Your task to perform on an android device: turn on improve location accuracy Image 0: 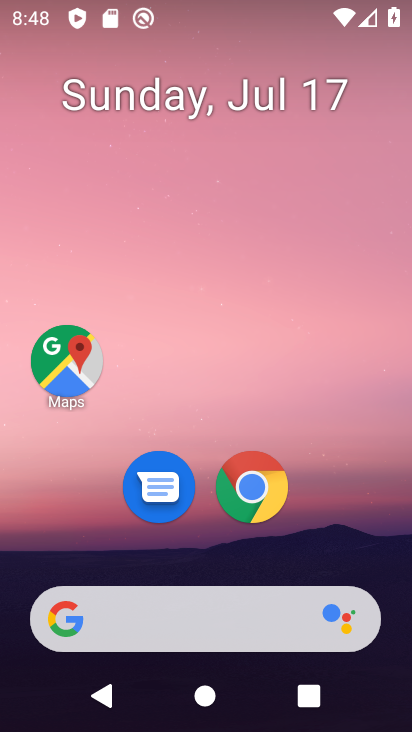
Step 0: press home button
Your task to perform on an android device: turn on improve location accuracy Image 1: 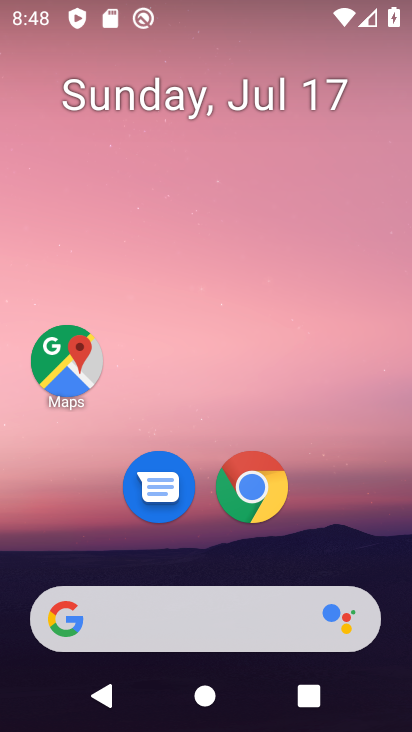
Step 1: drag from (291, 491) to (411, 296)
Your task to perform on an android device: turn on improve location accuracy Image 2: 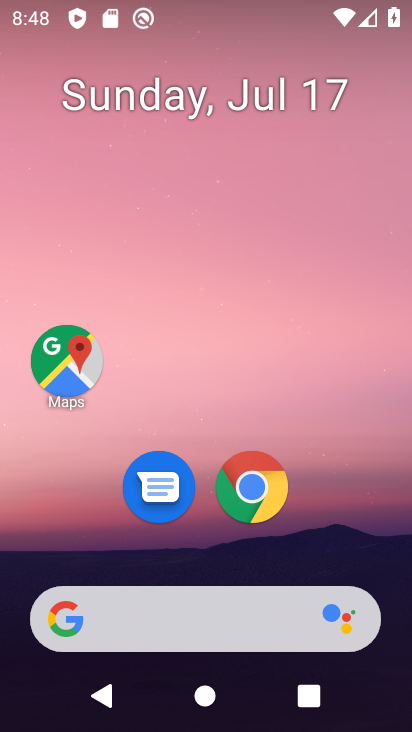
Step 2: drag from (359, 496) to (373, 90)
Your task to perform on an android device: turn on improve location accuracy Image 3: 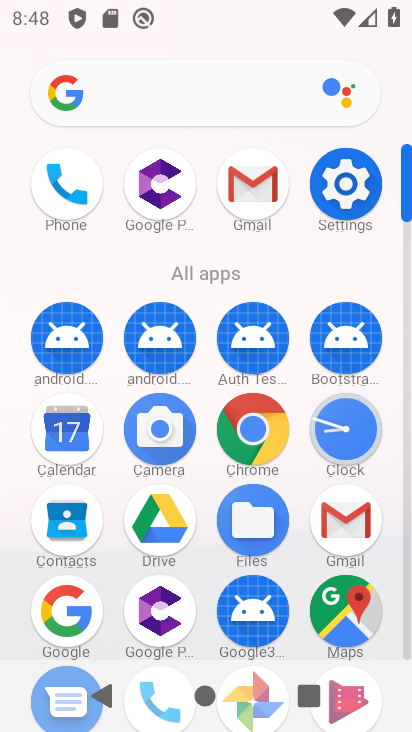
Step 3: click (360, 181)
Your task to perform on an android device: turn on improve location accuracy Image 4: 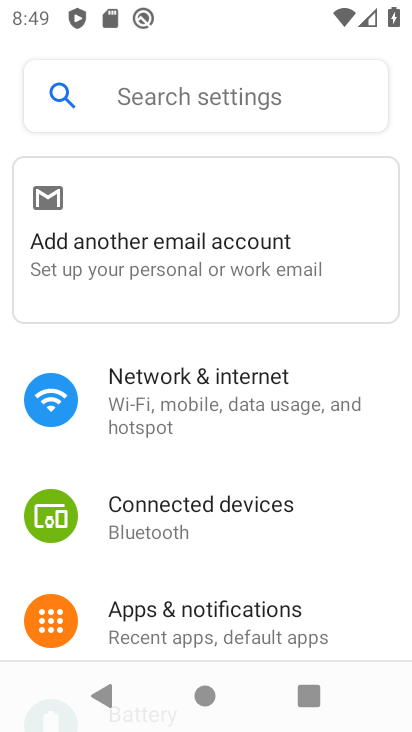
Step 4: drag from (342, 566) to (337, 278)
Your task to perform on an android device: turn on improve location accuracy Image 5: 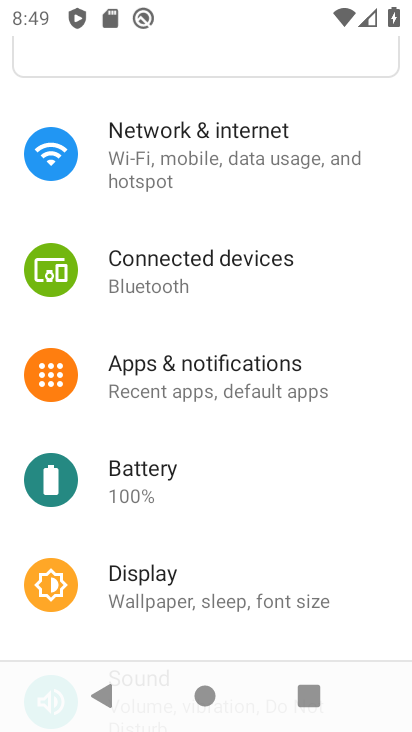
Step 5: drag from (255, 538) to (273, 202)
Your task to perform on an android device: turn on improve location accuracy Image 6: 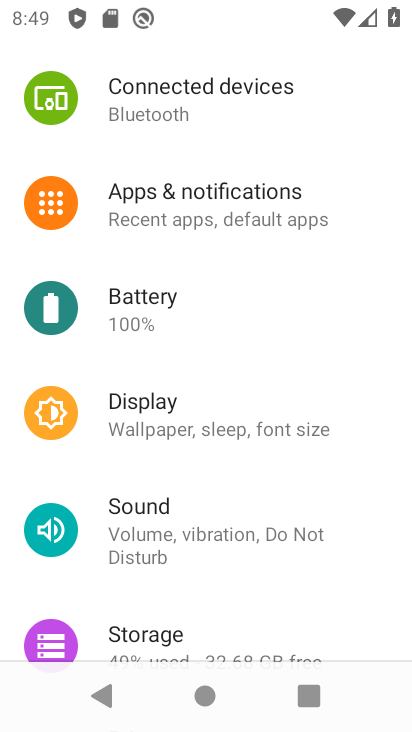
Step 6: drag from (224, 610) to (239, 216)
Your task to perform on an android device: turn on improve location accuracy Image 7: 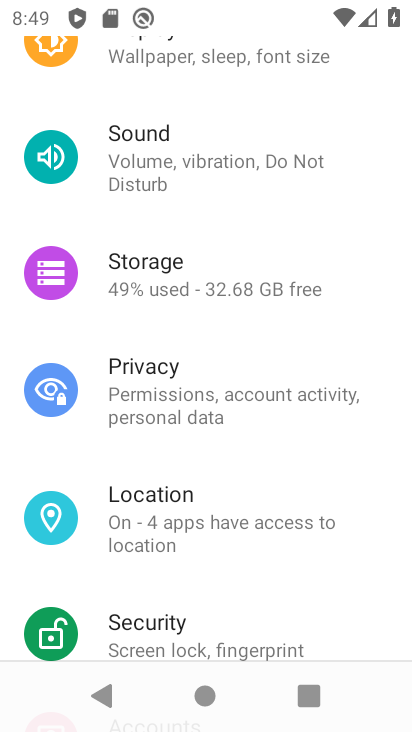
Step 7: click (243, 500)
Your task to perform on an android device: turn on improve location accuracy Image 8: 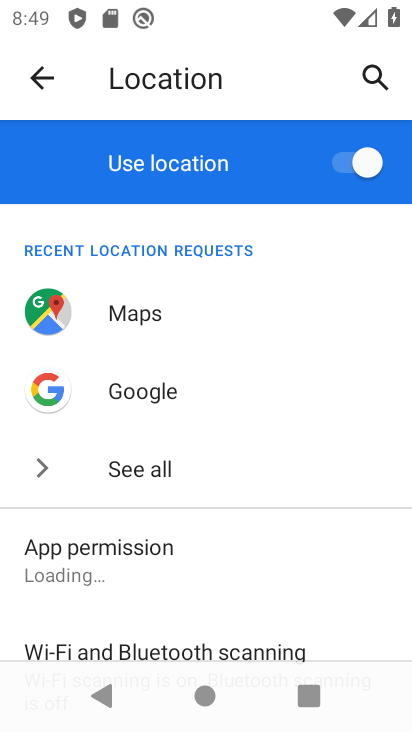
Step 8: drag from (276, 581) to (304, 195)
Your task to perform on an android device: turn on improve location accuracy Image 9: 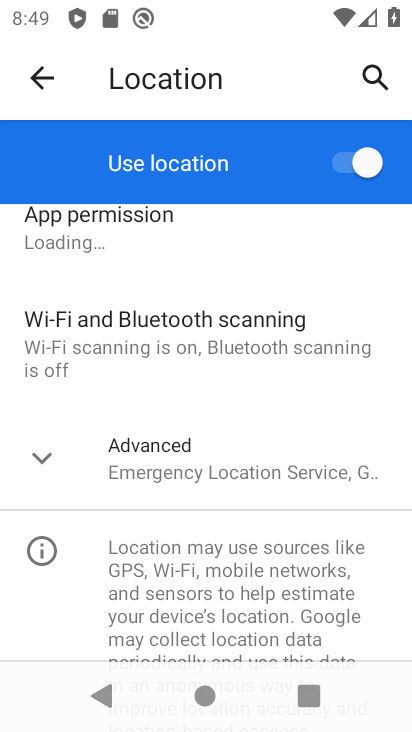
Step 9: drag from (266, 503) to (259, 199)
Your task to perform on an android device: turn on improve location accuracy Image 10: 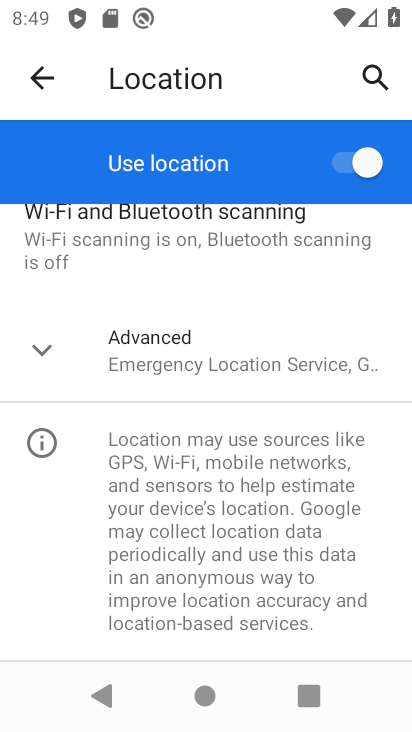
Step 10: click (35, 353)
Your task to perform on an android device: turn on improve location accuracy Image 11: 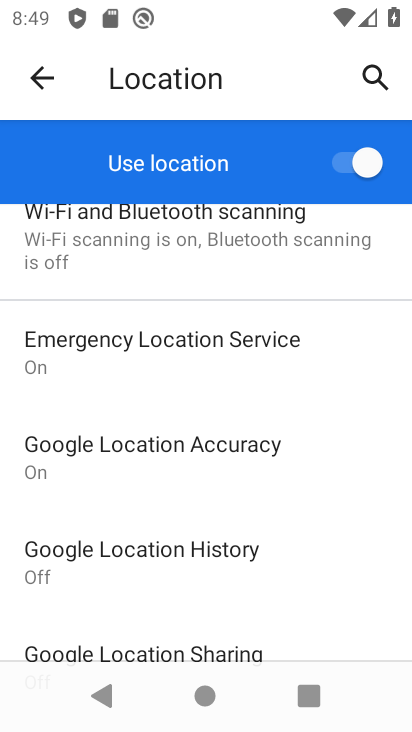
Step 11: task complete